Your task to perform on an android device: open sync settings in chrome Image 0: 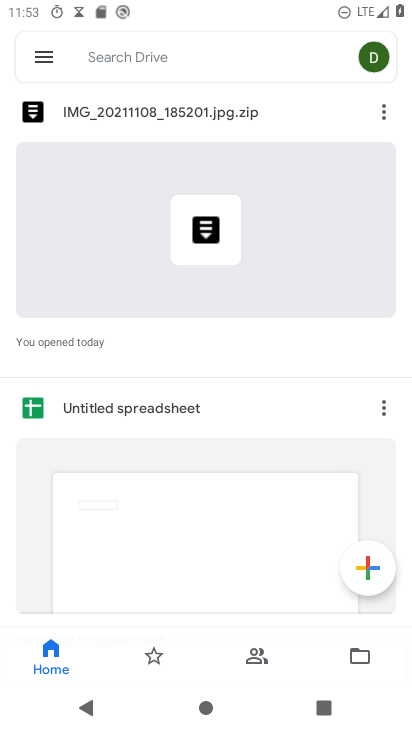
Step 0: press home button
Your task to perform on an android device: open sync settings in chrome Image 1: 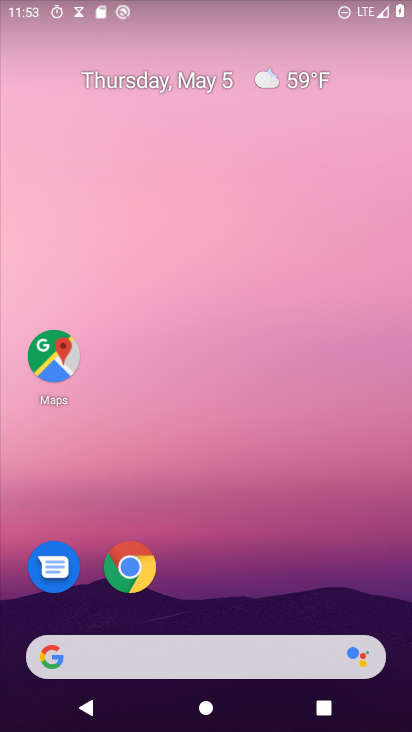
Step 1: click (122, 568)
Your task to perform on an android device: open sync settings in chrome Image 2: 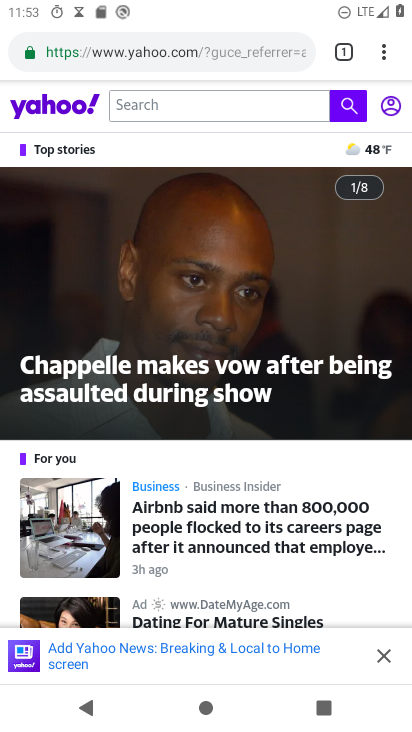
Step 2: drag from (386, 51) to (200, 612)
Your task to perform on an android device: open sync settings in chrome Image 3: 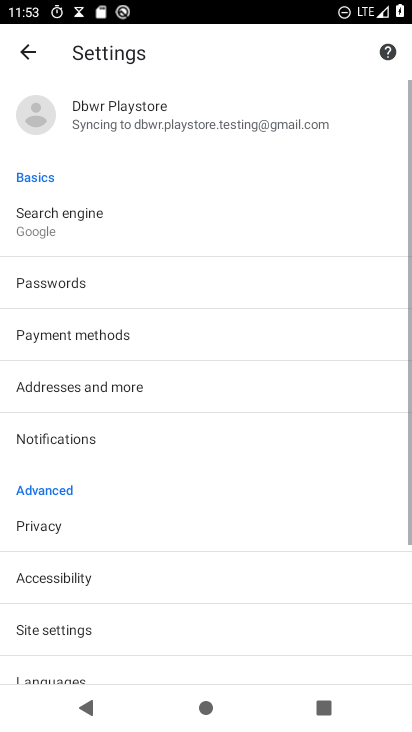
Step 3: click (89, 119)
Your task to perform on an android device: open sync settings in chrome Image 4: 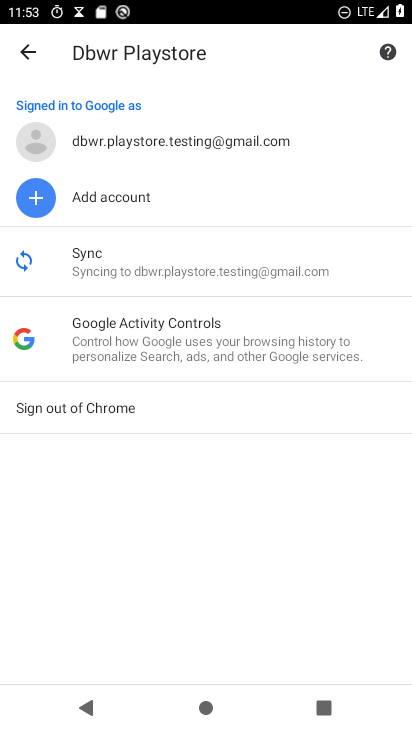
Step 4: click (105, 257)
Your task to perform on an android device: open sync settings in chrome Image 5: 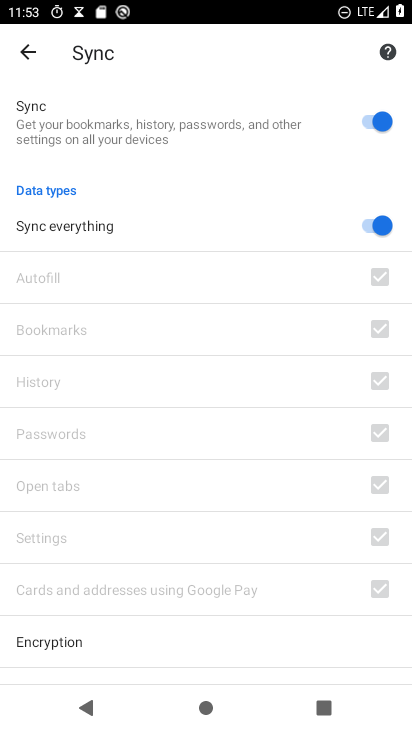
Step 5: task complete